Your task to perform on an android device: Open internet settings Image 0: 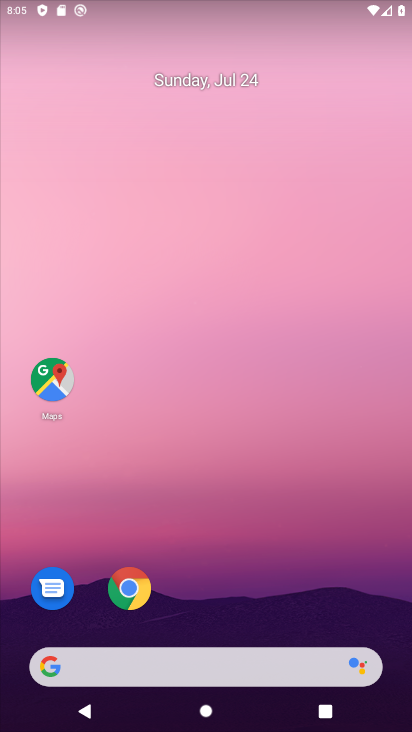
Step 0: drag from (312, 569) to (214, 0)
Your task to perform on an android device: Open internet settings Image 1: 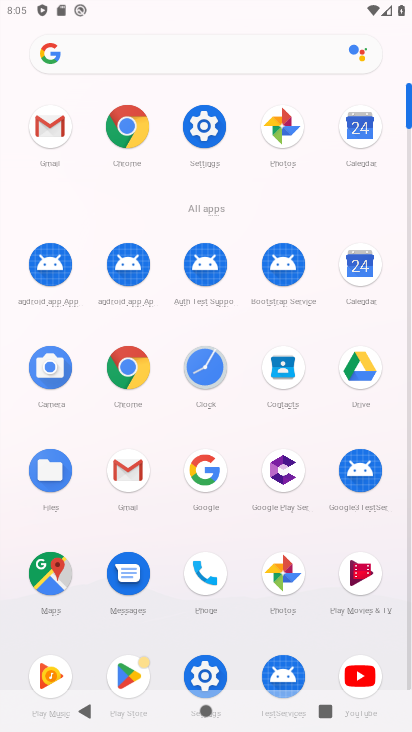
Step 1: click (206, 133)
Your task to perform on an android device: Open internet settings Image 2: 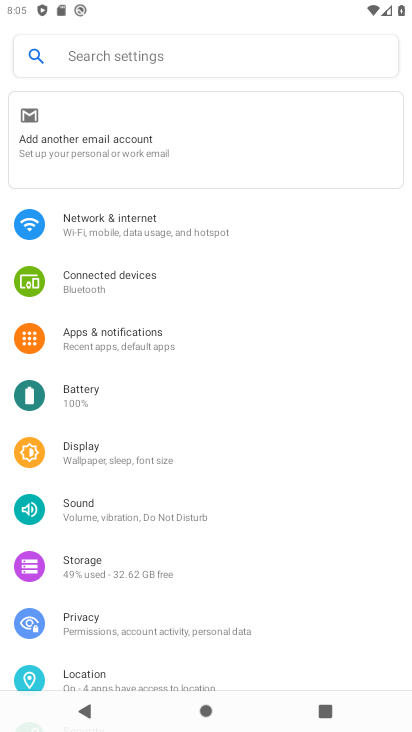
Step 2: click (162, 222)
Your task to perform on an android device: Open internet settings Image 3: 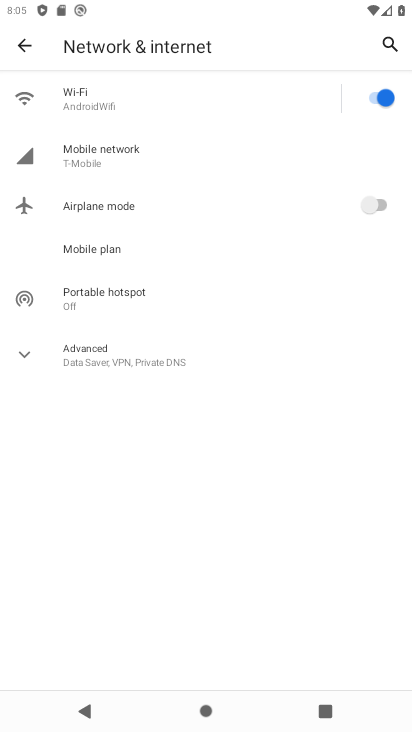
Step 3: click (76, 151)
Your task to perform on an android device: Open internet settings Image 4: 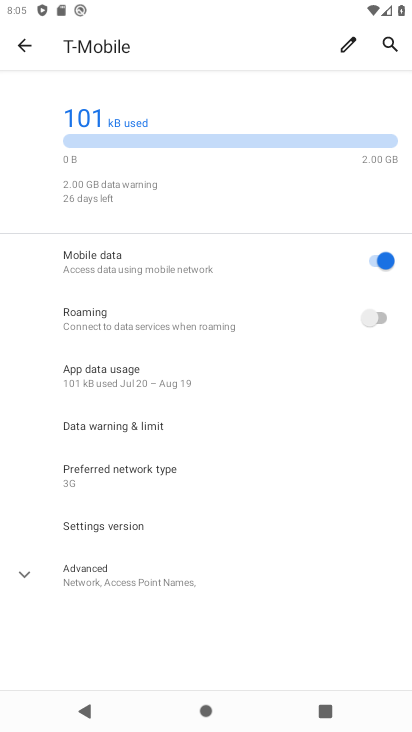
Step 4: task complete